Your task to perform on an android device: Search for "macbook pro 15 inch" on target.com, select the first entry, add it to the cart, then select checkout. Image 0: 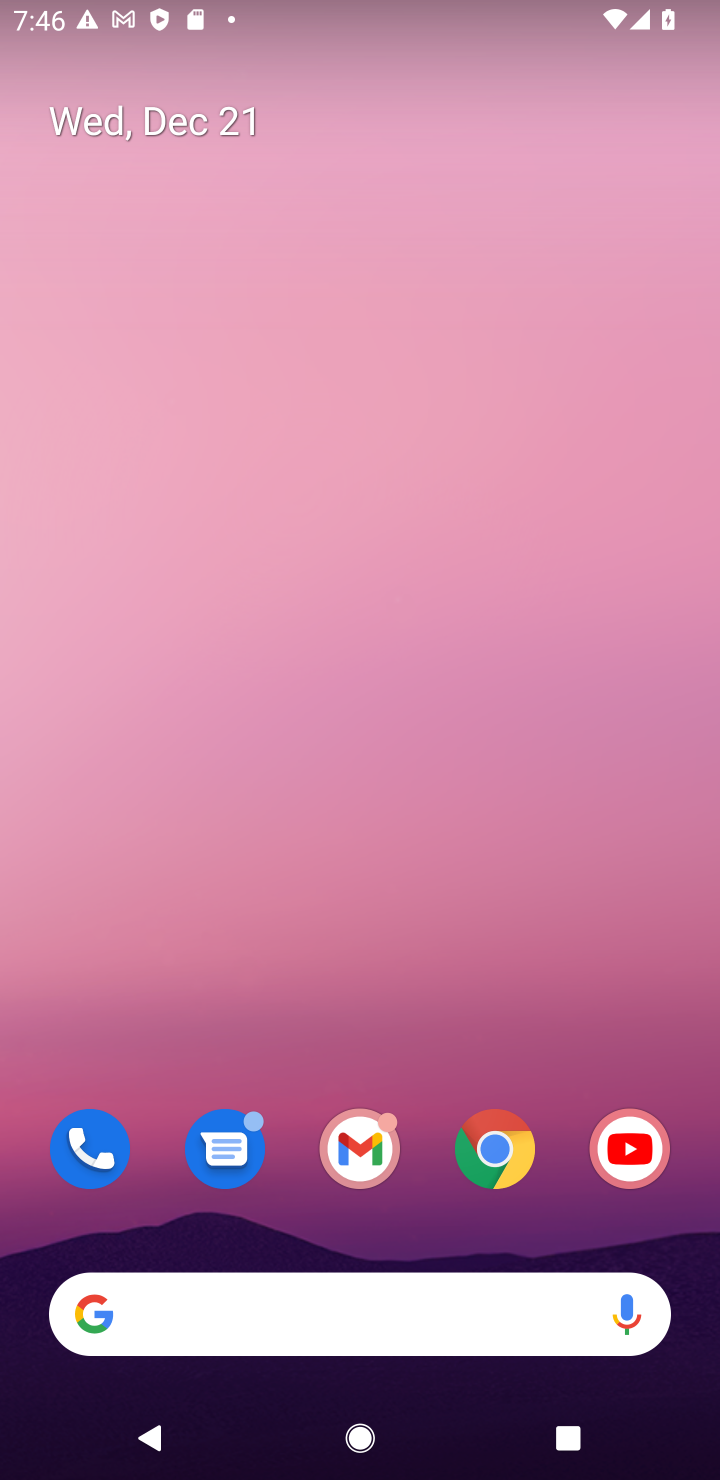
Step 0: click (502, 1135)
Your task to perform on an android device: Search for "macbook pro 15 inch" on target.com, select the first entry, add it to the cart, then select checkout. Image 1: 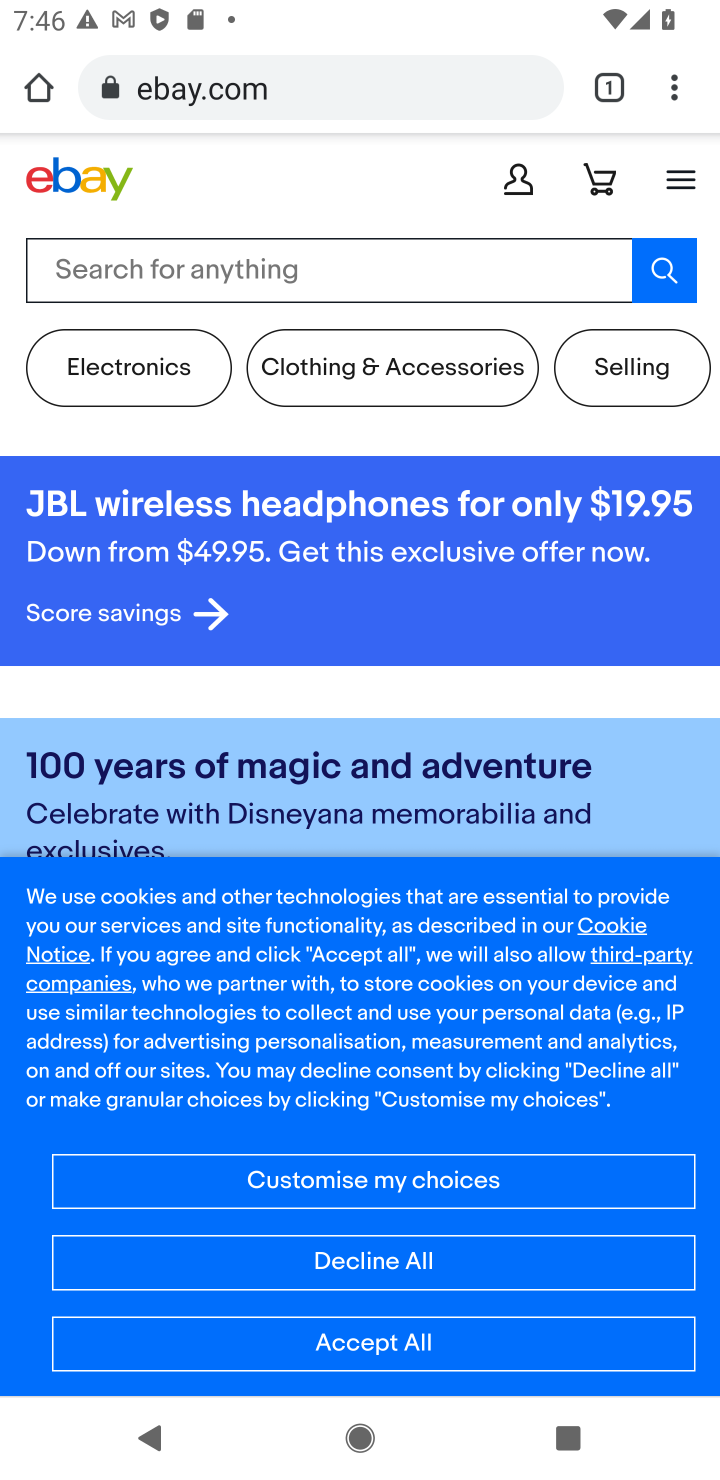
Step 1: click (230, 87)
Your task to perform on an android device: Search for "macbook pro 15 inch" on target.com, select the first entry, add it to the cart, then select checkout. Image 2: 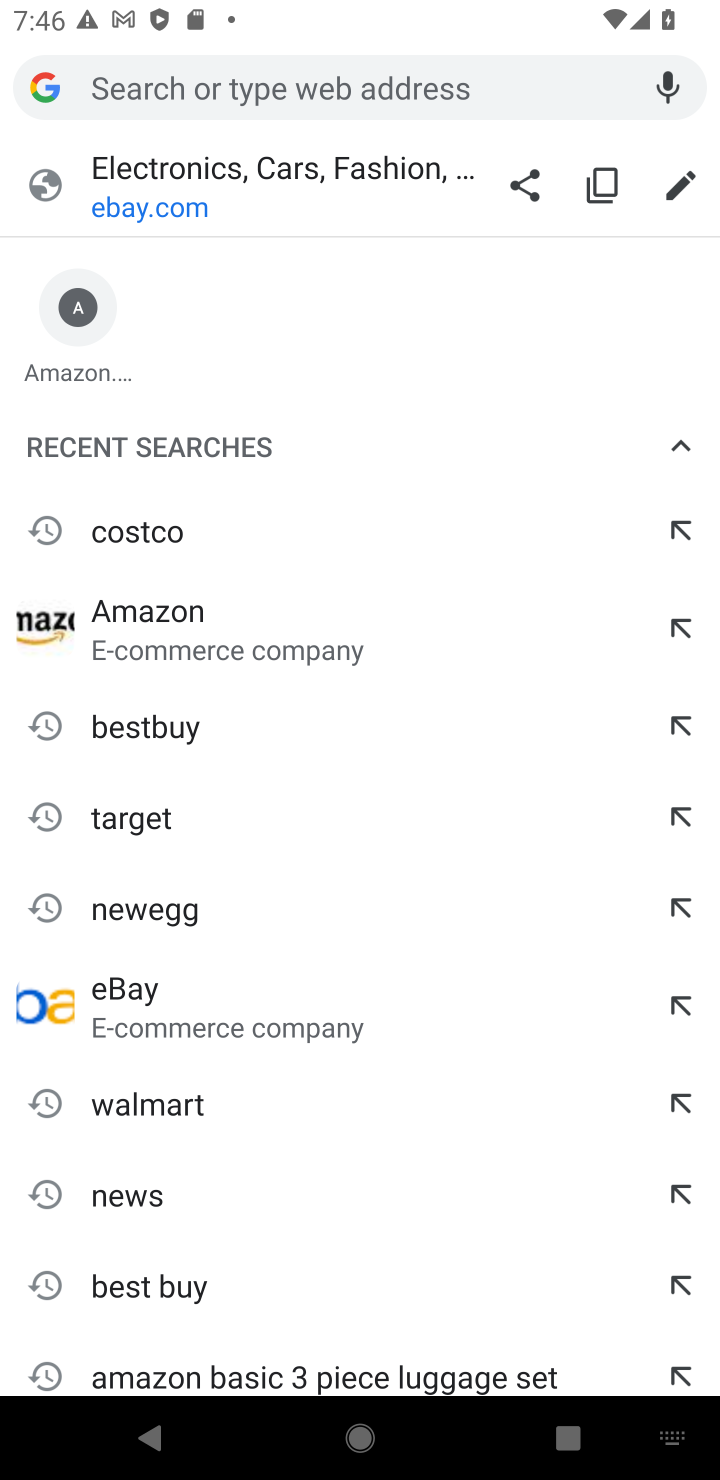
Step 2: type "TARGET"
Your task to perform on an android device: Search for "macbook pro 15 inch" on target.com, select the first entry, add it to the cart, then select checkout. Image 3: 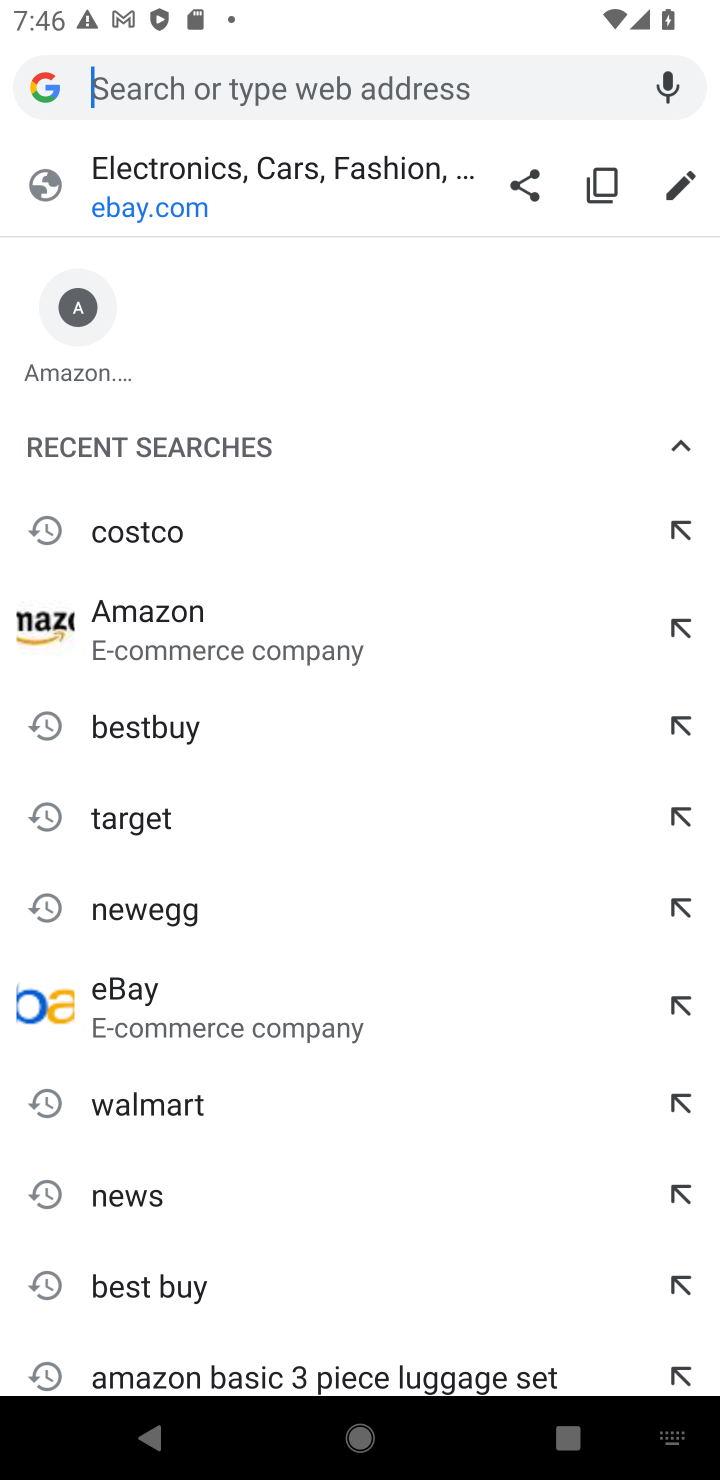
Step 3: click (144, 819)
Your task to perform on an android device: Search for "macbook pro 15 inch" on target.com, select the first entry, add it to the cart, then select checkout. Image 4: 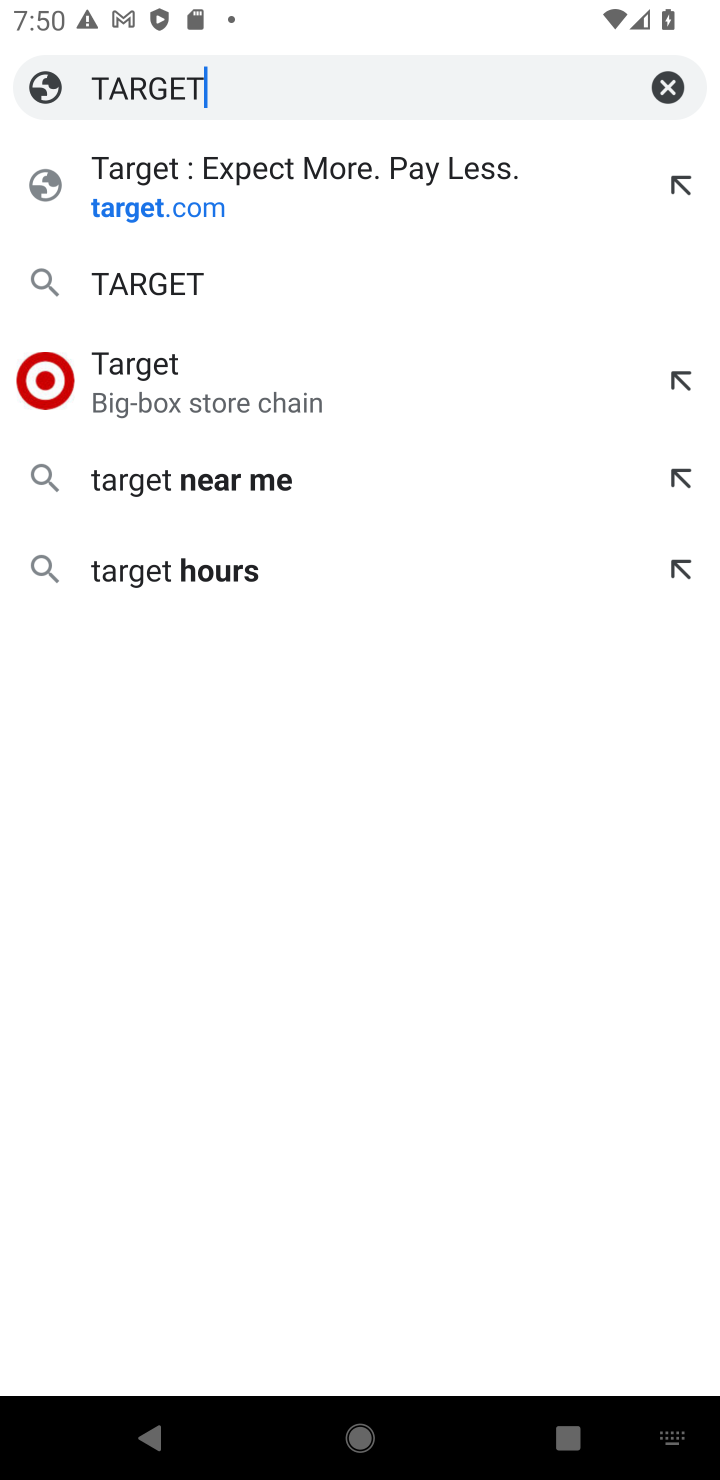
Step 4: click (322, 190)
Your task to perform on an android device: Search for "macbook pro 15 inch" on target.com, select the first entry, add it to the cart, then select checkout. Image 5: 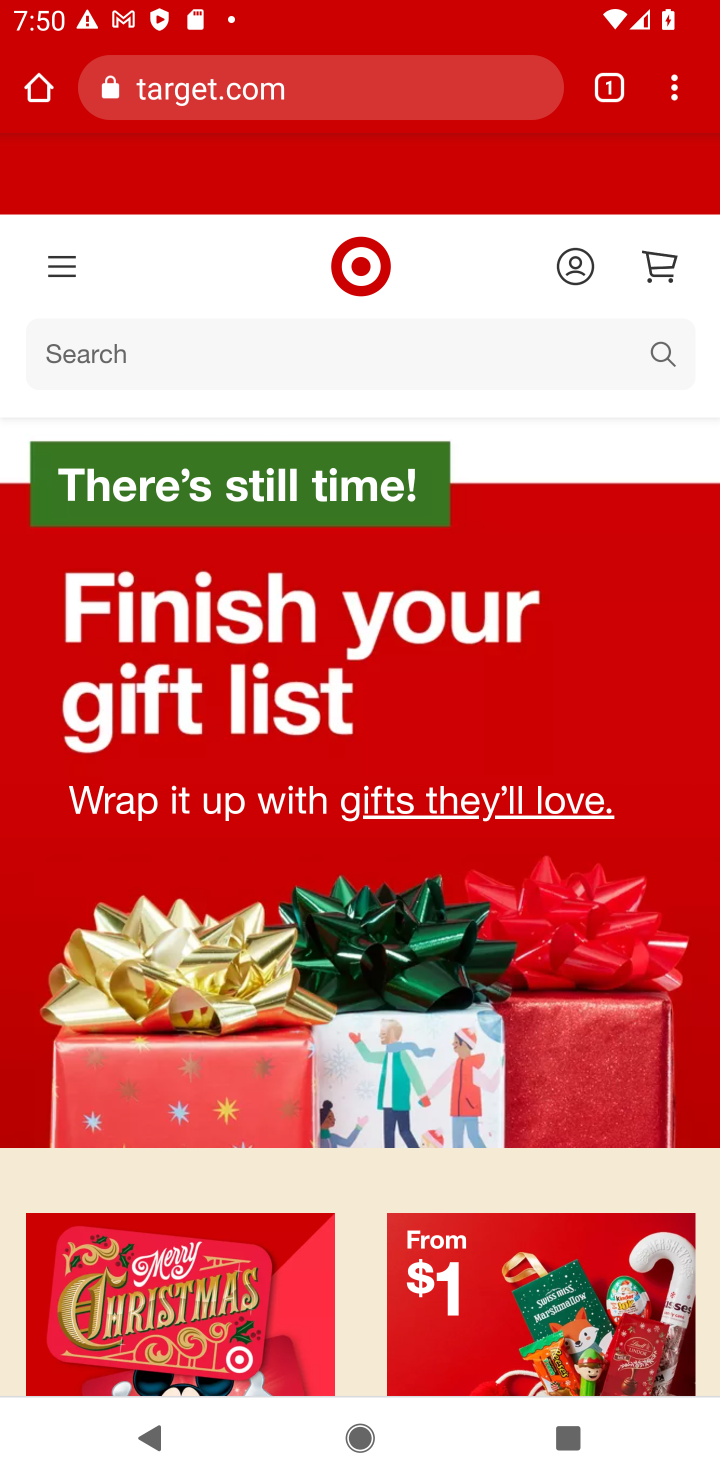
Step 5: task complete